Your task to perform on an android device: star an email in the gmail app Image 0: 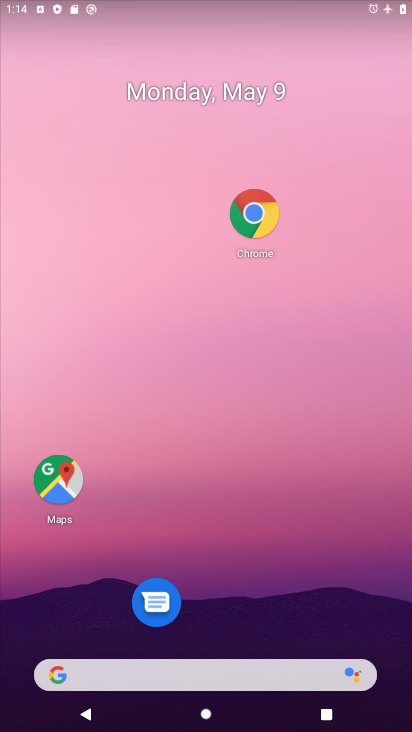
Step 0: drag from (260, 563) to (265, 128)
Your task to perform on an android device: star an email in the gmail app Image 1: 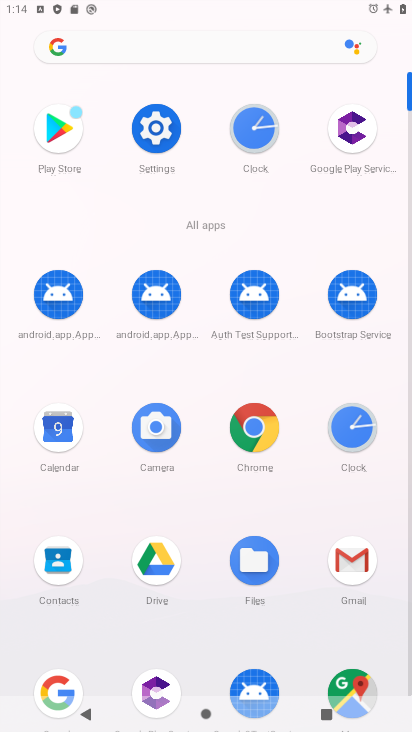
Step 1: click (346, 560)
Your task to perform on an android device: star an email in the gmail app Image 2: 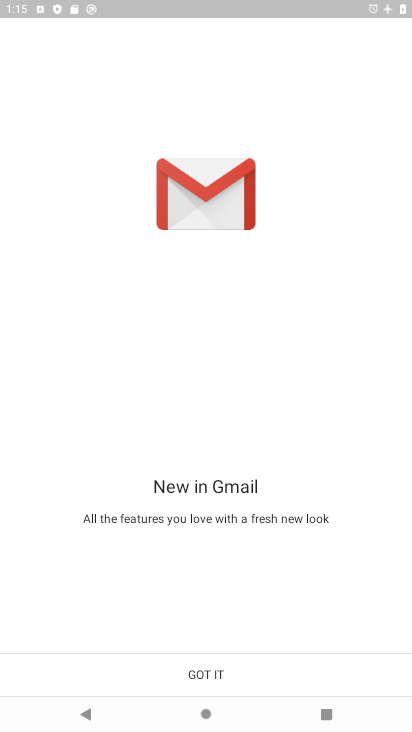
Step 2: click (220, 678)
Your task to perform on an android device: star an email in the gmail app Image 3: 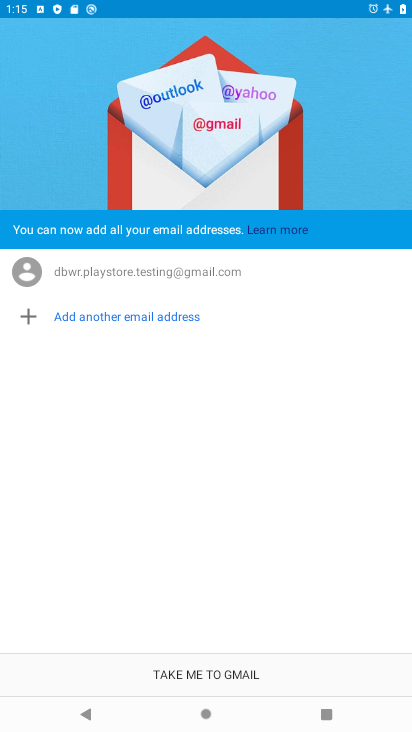
Step 3: click (220, 678)
Your task to perform on an android device: star an email in the gmail app Image 4: 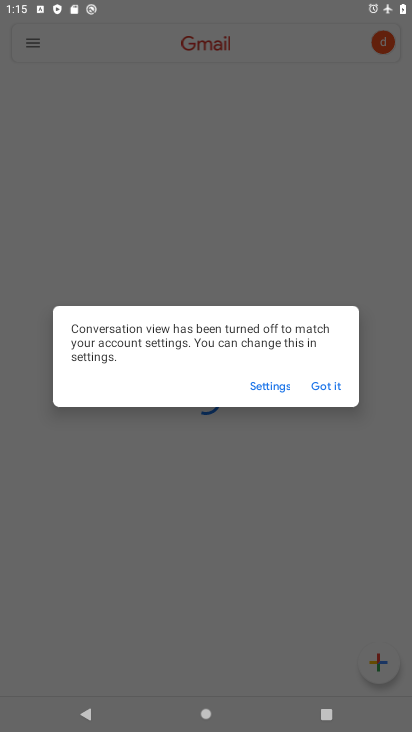
Step 4: click (339, 390)
Your task to perform on an android device: star an email in the gmail app Image 5: 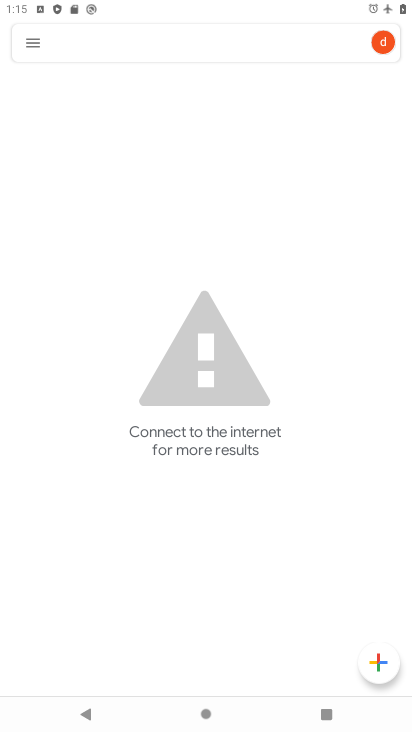
Step 5: task complete